Your task to perform on an android device: Open privacy settings Image 0: 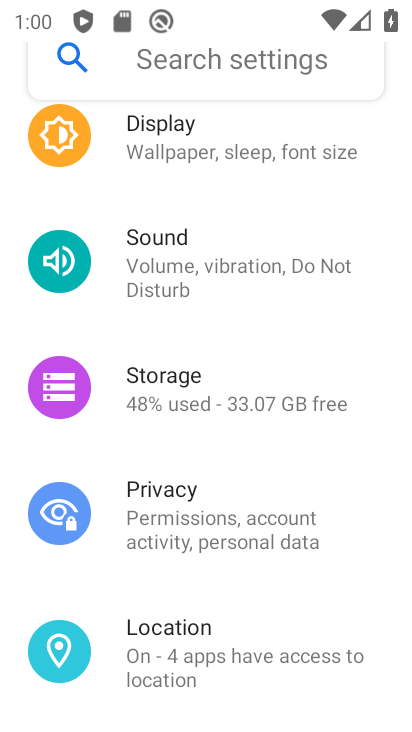
Step 0: press home button
Your task to perform on an android device: Open privacy settings Image 1: 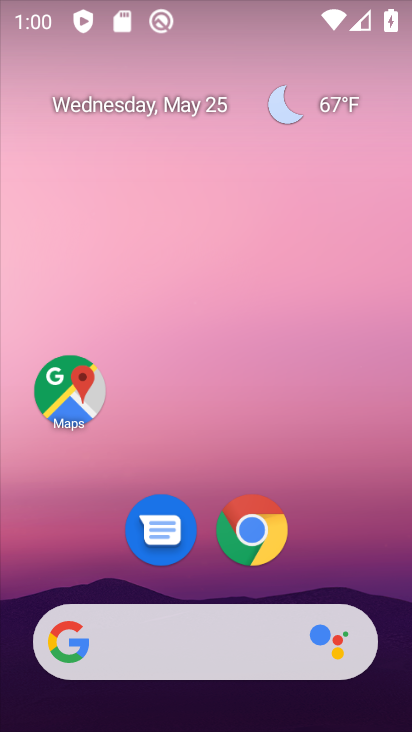
Step 1: drag from (333, 559) to (252, 71)
Your task to perform on an android device: Open privacy settings Image 2: 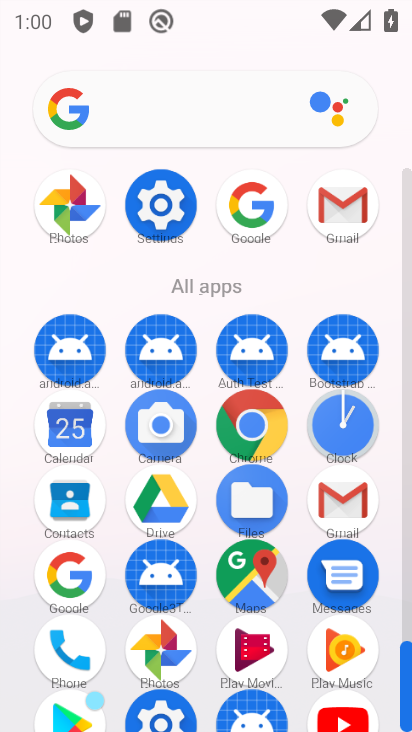
Step 2: click (158, 200)
Your task to perform on an android device: Open privacy settings Image 3: 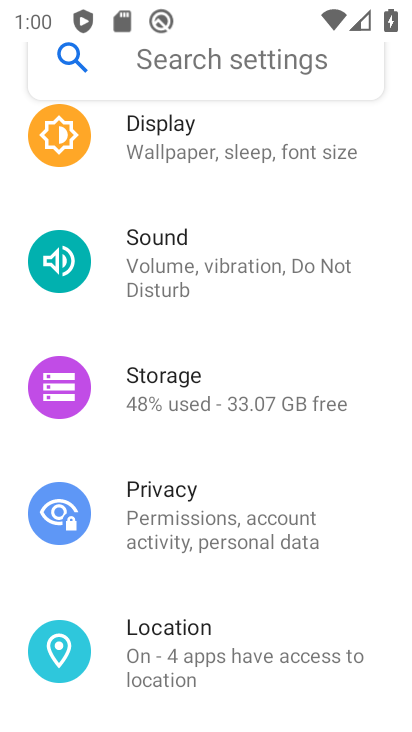
Step 3: click (167, 510)
Your task to perform on an android device: Open privacy settings Image 4: 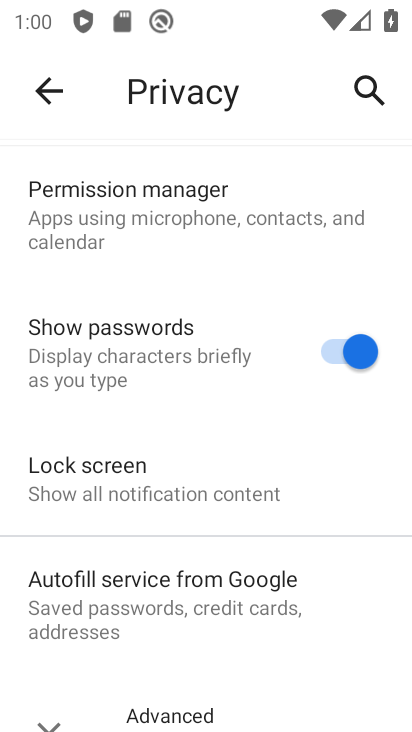
Step 4: task complete